Your task to perform on an android device: Go to location settings Image 0: 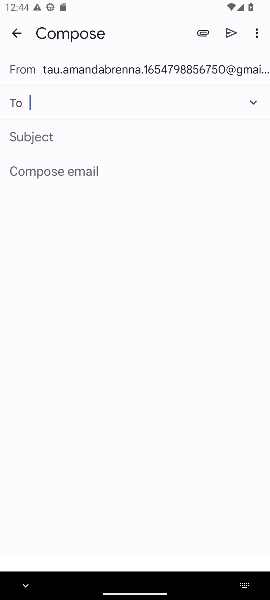
Step 0: press home button
Your task to perform on an android device: Go to location settings Image 1: 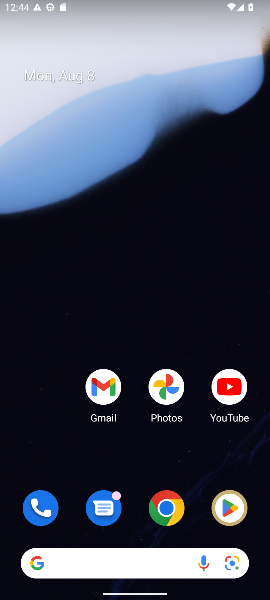
Step 1: click (124, 521)
Your task to perform on an android device: Go to location settings Image 2: 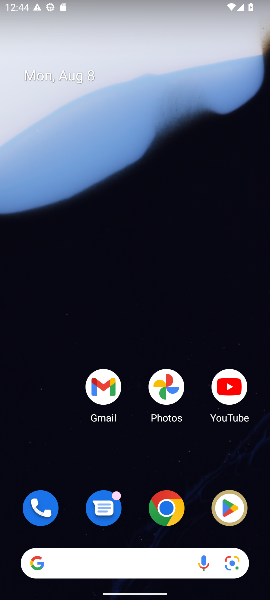
Step 2: drag from (125, 490) to (111, 129)
Your task to perform on an android device: Go to location settings Image 3: 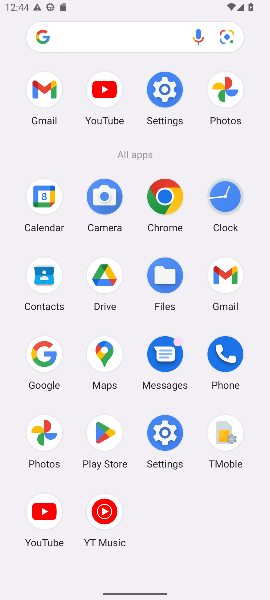
Step 3: click (164, 92)
Your task to perform on an android device: Go to location settings Image 4: 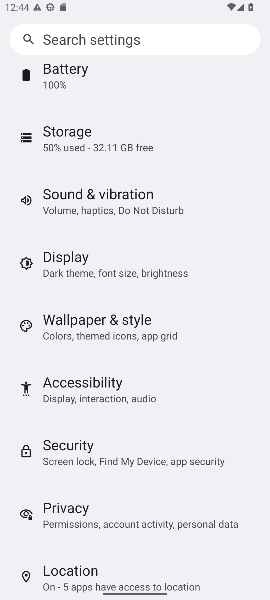
Step 4: click (79, 581)
Your task to perform on an android device: Go to location settings Image 5: 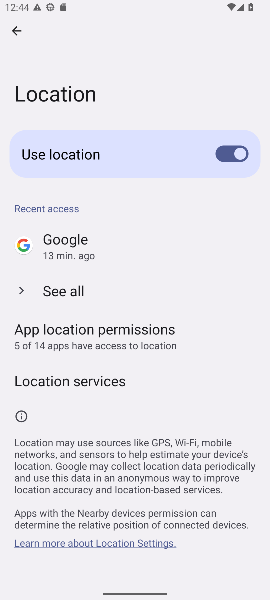
Step 5: task complete